Your task to perform on an android device: Open maps Image 0: 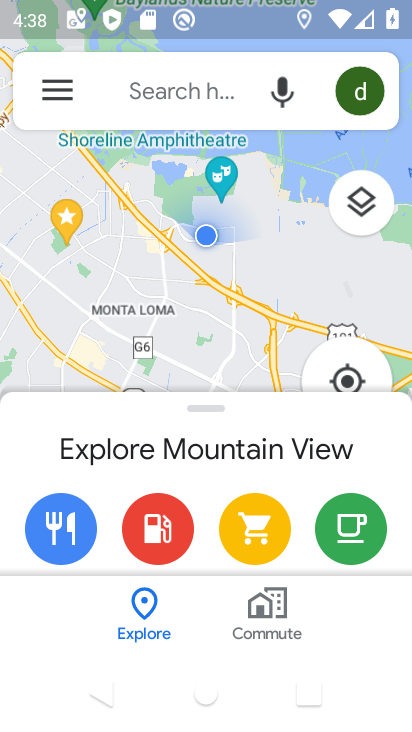
Step 0: press home button
Your task to perform on an android device: Open maps Image 1: 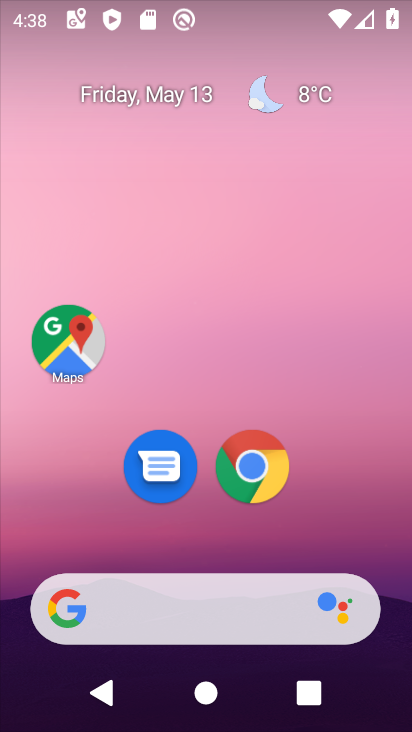
Step 1: click (64, 347)
Your task to perform on an android device: Open maps Image 2: 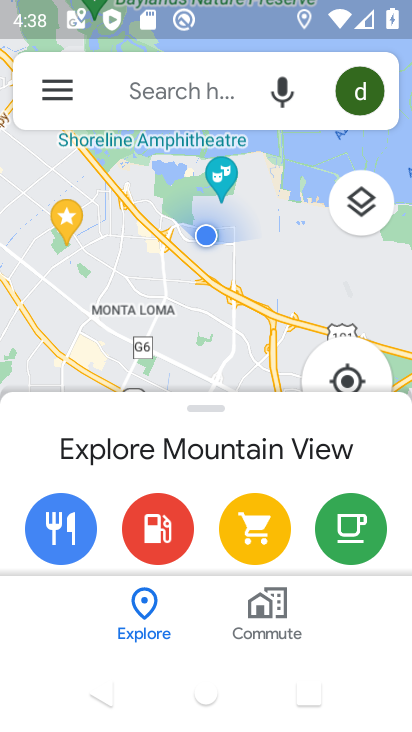
Step 2: task complete